Your task to perform on an android device: What's on my calendar today? Image 0: 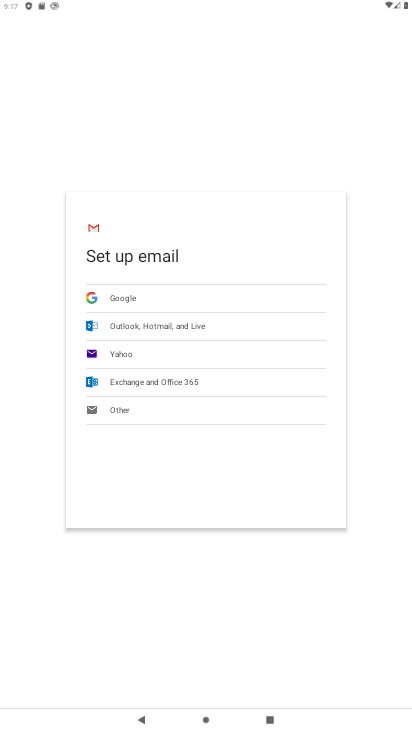
Step 0: press home button
Your task to perform on an android device: What's on my calendar today? Image 1: 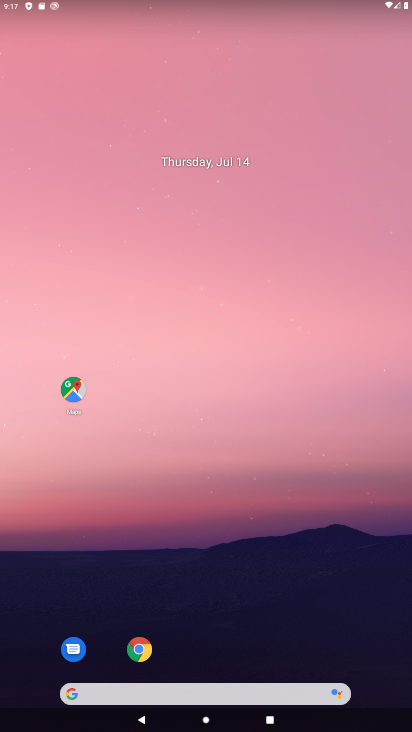
Step 1: drag from (193, 647) to (185, 200)
Your task to perform on an android device: What's on my calendar today? Image 2: 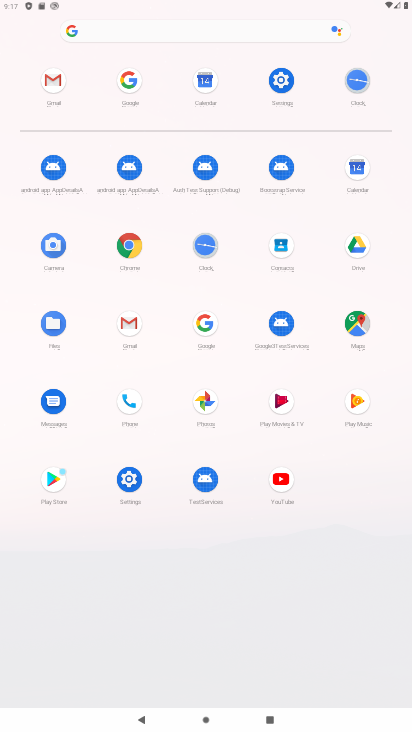
Step 2: click (357, 170)
Your task to perform on an android device: What's on my calendar today? Image 3: 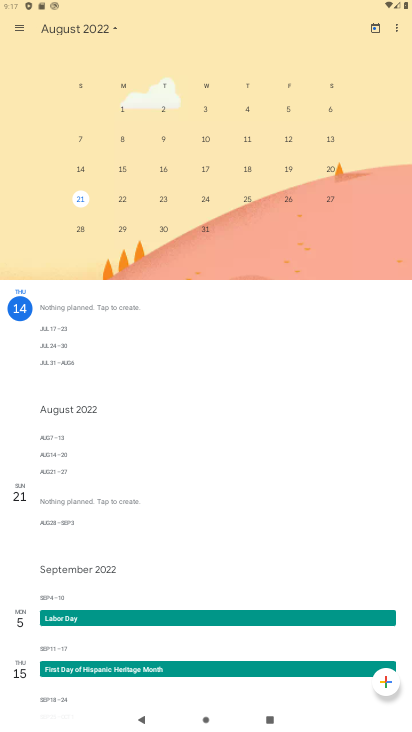
Step 3: task complete